Your task to perform on an android device: View the shopping cart on ebay. Search for "dell xps" on ebay, select the first entry, add it to the cart, then select checkout. Image 0: 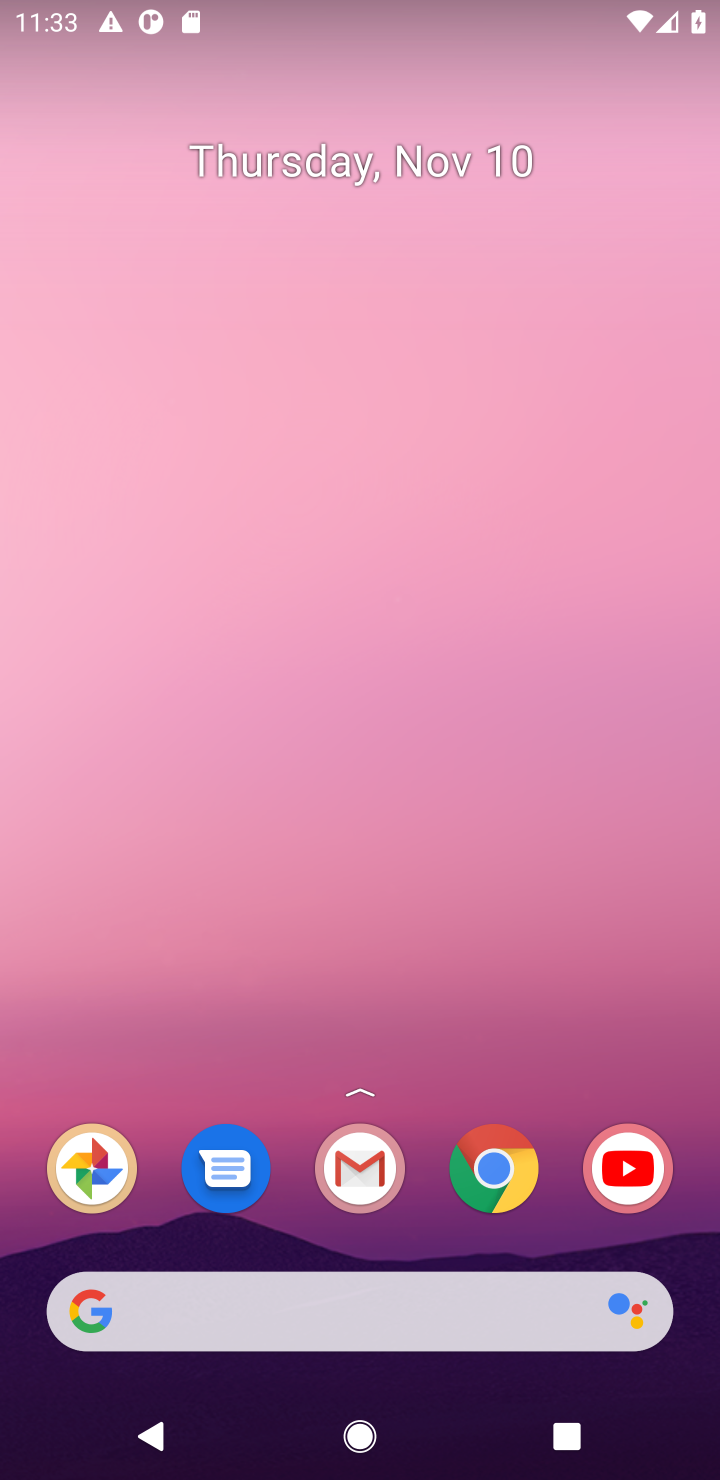
Step 0: click (499, 1171)
Your task to perform on an android device: View the shopping cart on ebay. Search for "dell xps" on ebay, select the first entry, add it to the cart, then select checkout. Image 1: 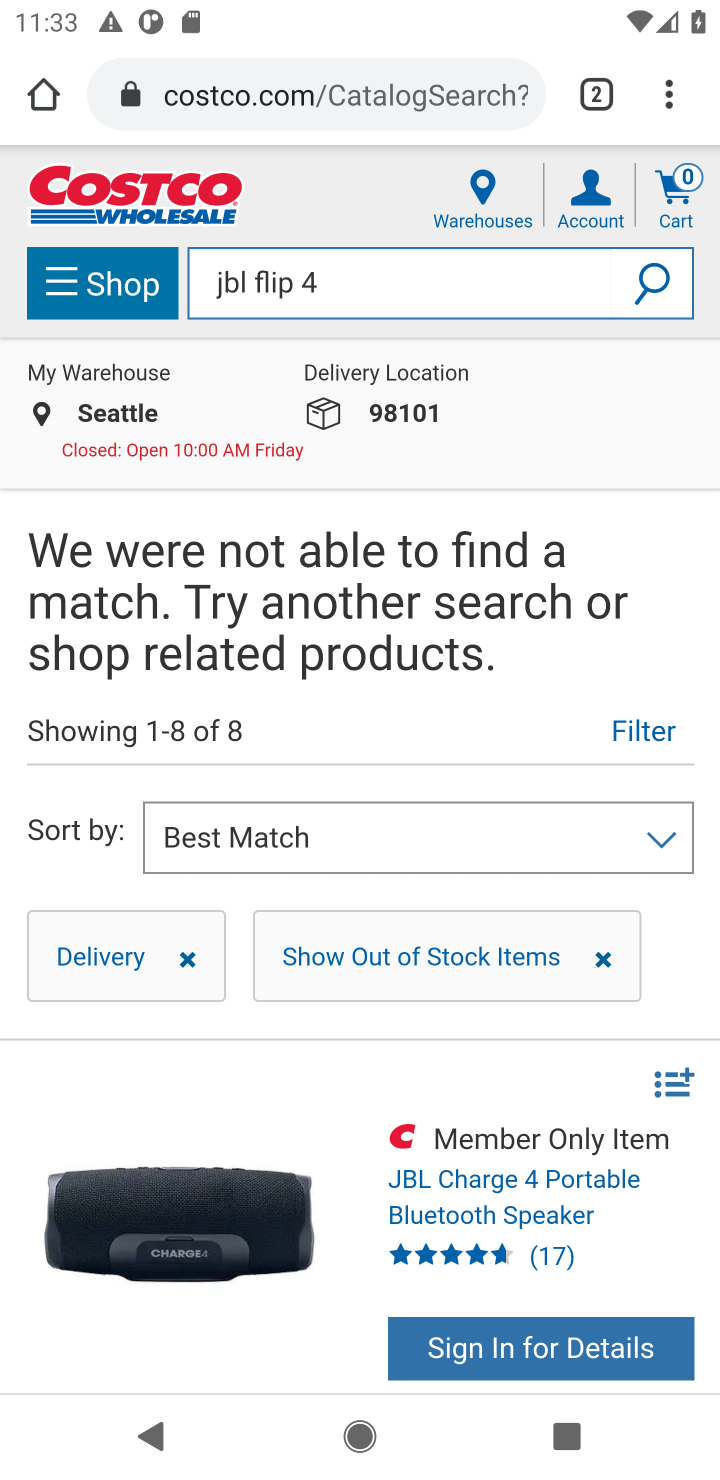
Step 1: click (340, 101)
Your task to perform on an android device: View the shopping cart on ebay. Search for "dell xps" on ebay, select the first entry, add it to the cart, then select checkout. Image 2: 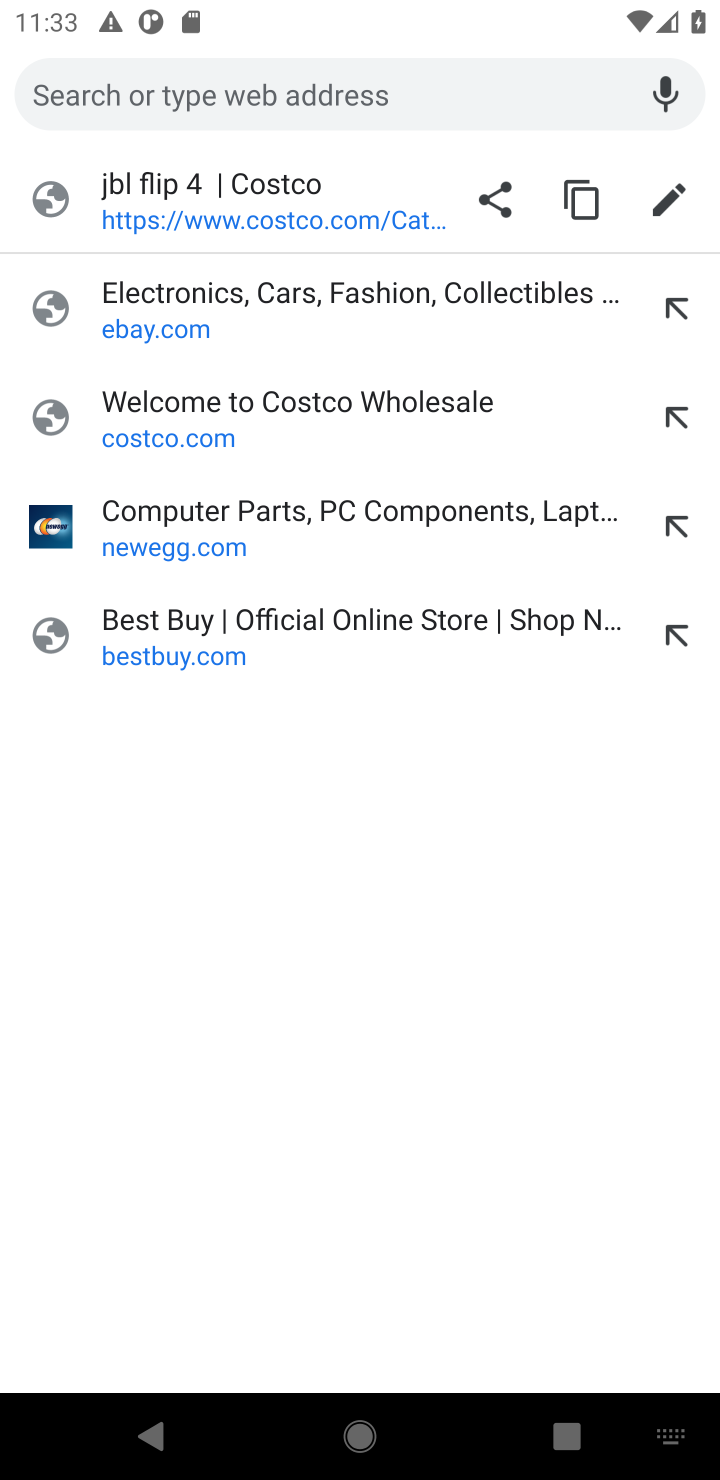
Step 2: click (142, 325)
Your task to perform on an android device: View the shopping cart on ebay. Search for "dell xps" on ebay, select the first entry, add it to the cart, then select checkout. Image 3: 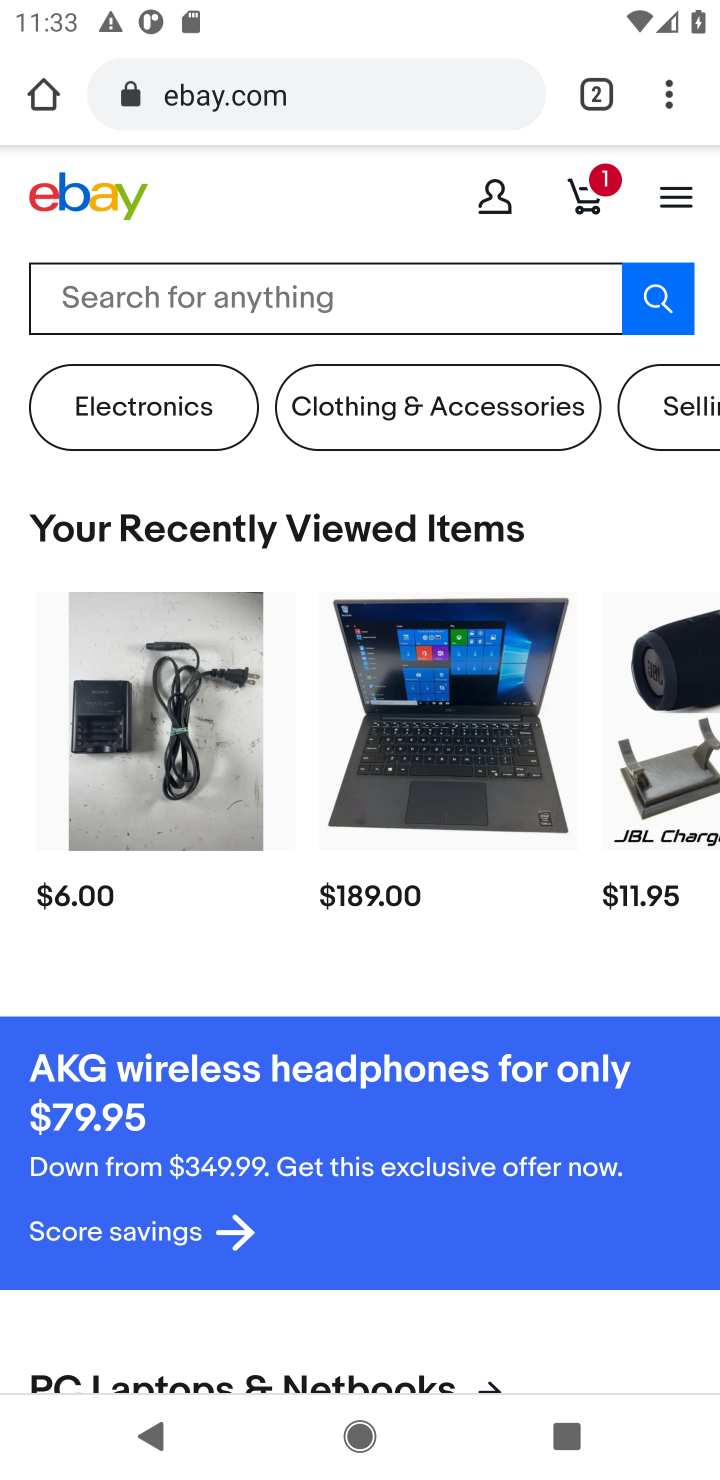
Step 3: click (581, 215)
Your task to perform on an android device: View the shopping cart on ebay. Search for "dell xps" on ebay, select the first entry, add it to the cart, then select checkout. Image 4: 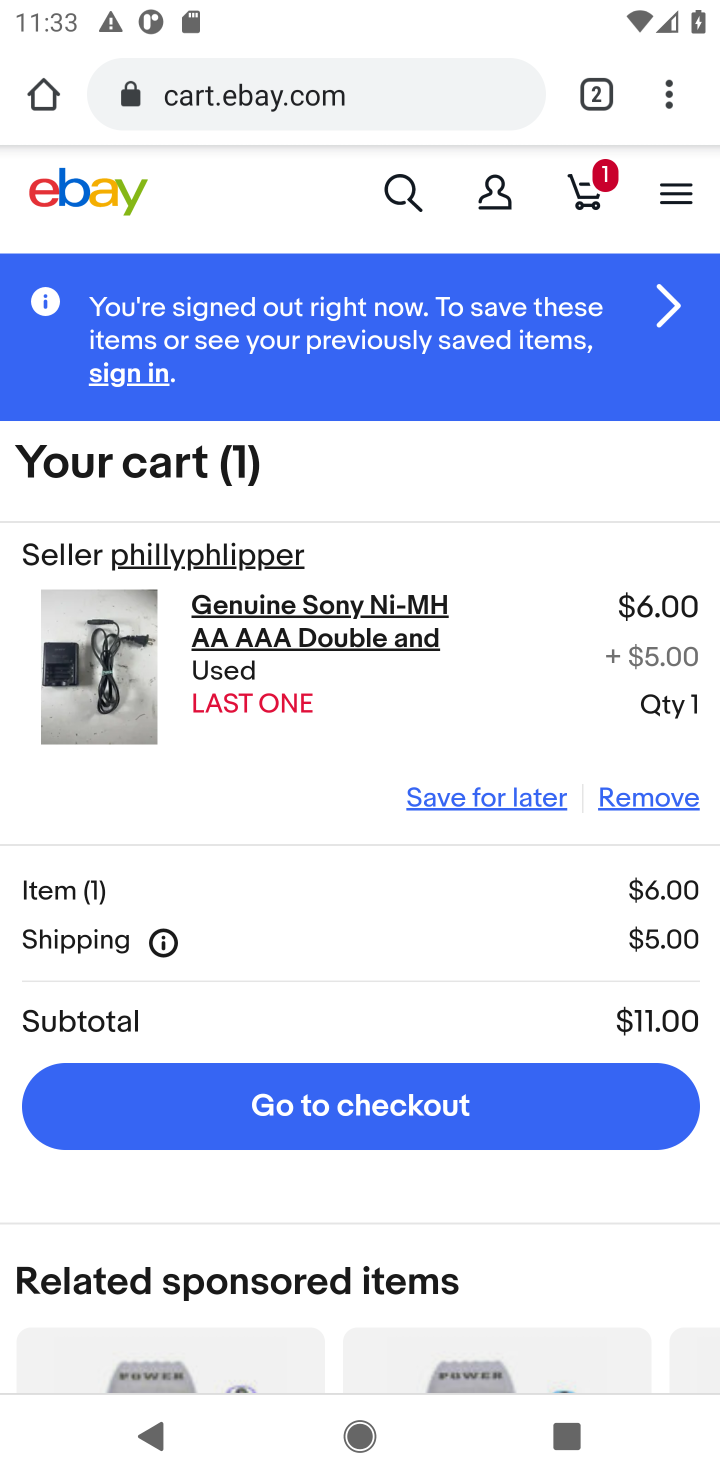
Step 4: click (401, 192)
Your task to perform on an android device: View the shopping cart on ebay. Search for "dell xps" on ebay, select the first entry, add it to the cart, then select checkout. Image 5: 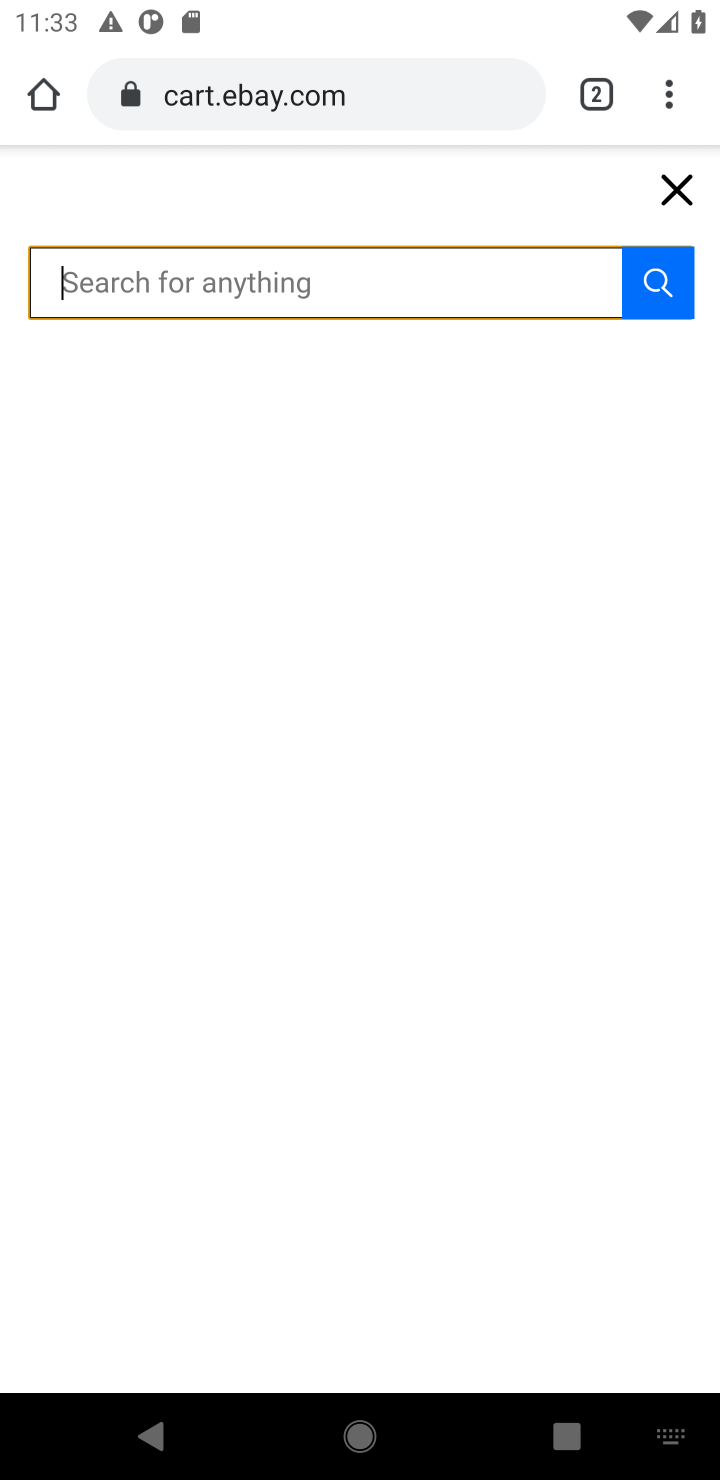
Step 5: type "dell xps"
Your task to perform on an android device: View the shopping cart on ebay. Search for "dell xps" on ebay, select the first entry, add it to the cart, then select checkout. Image 6: 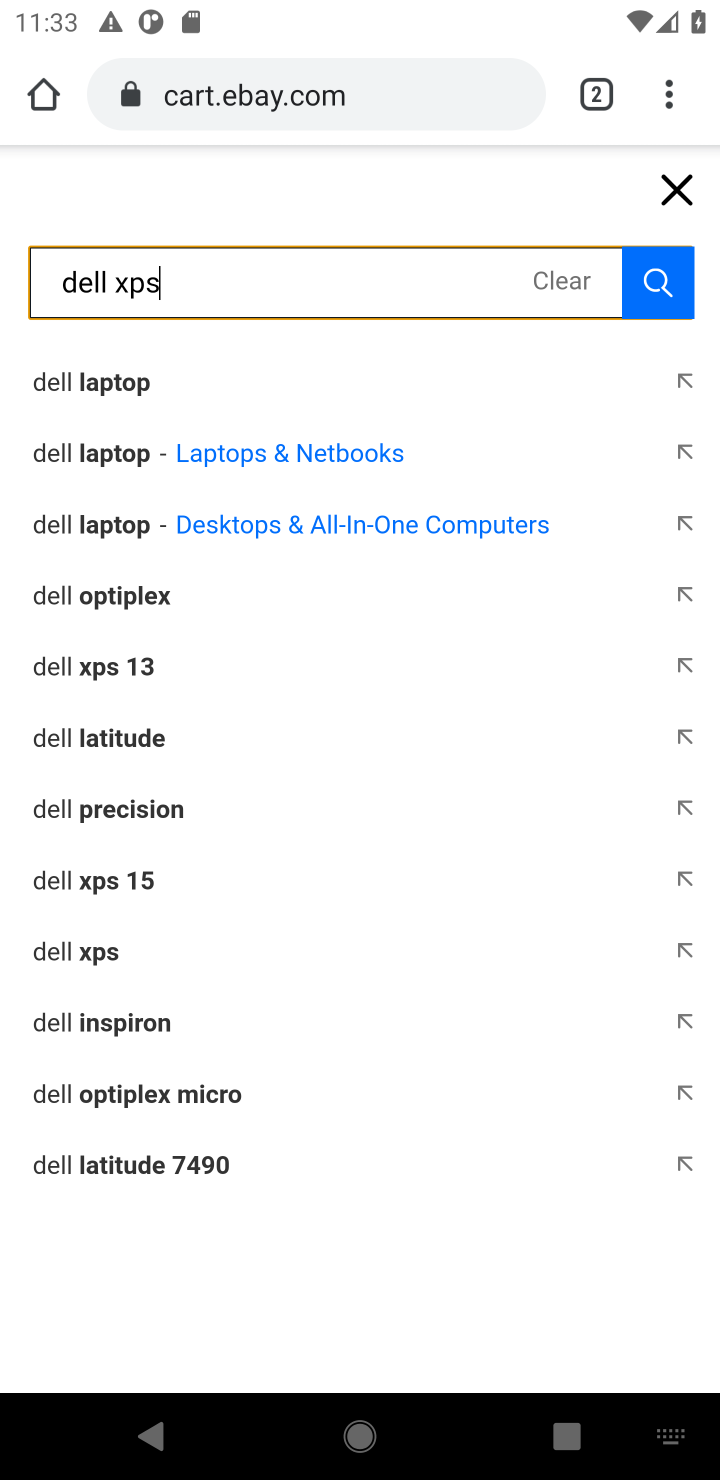
Step 6: click (106, 953)
Your task to perform on an android device: View the shopping cart on ebay. Search for "dell xps" on ebay, select the first entry, add it to the cart, then select checkout. Image 7: 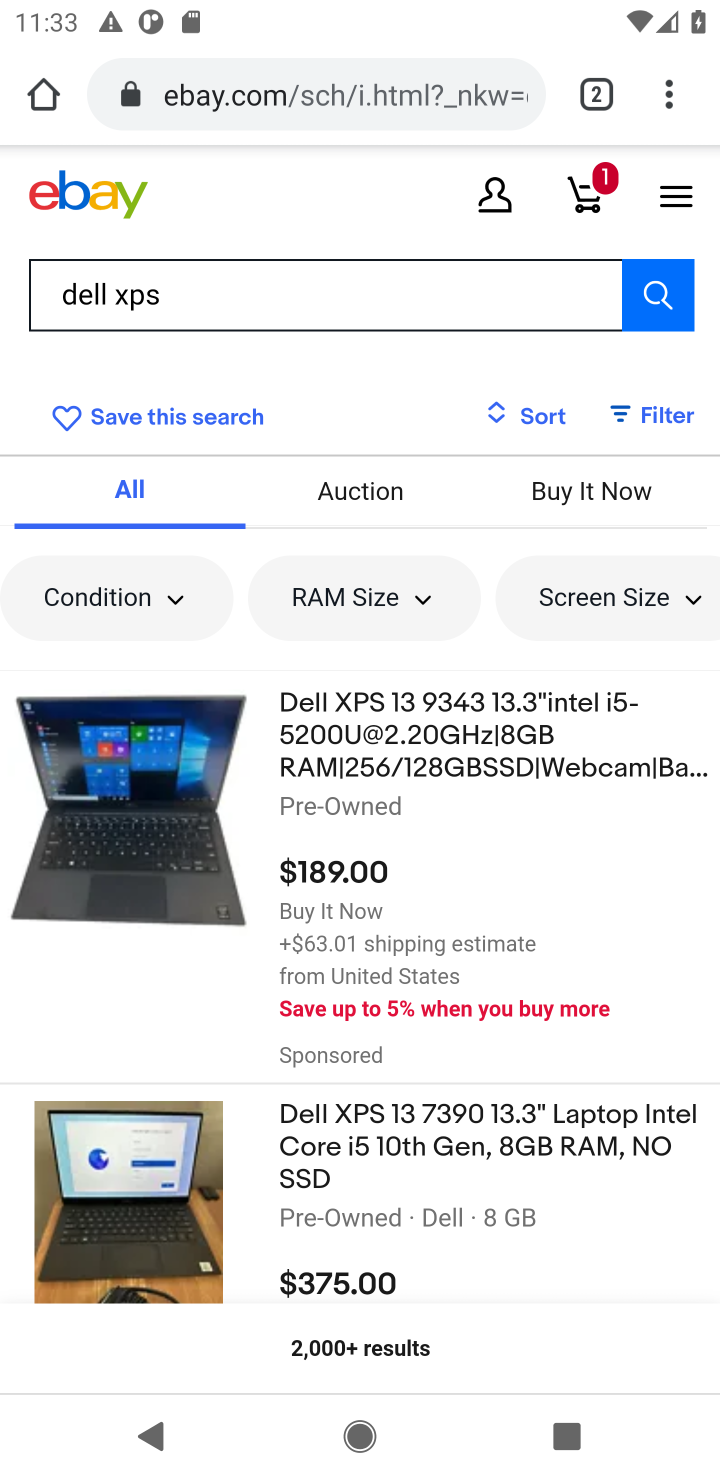
Step 7: click (146, 888)
Your task to perform on an android device: View the shopping cart on ebay. Search for "dell xps" on ebay, select the first entry, add it to the cart, then select checkout. Image 8: 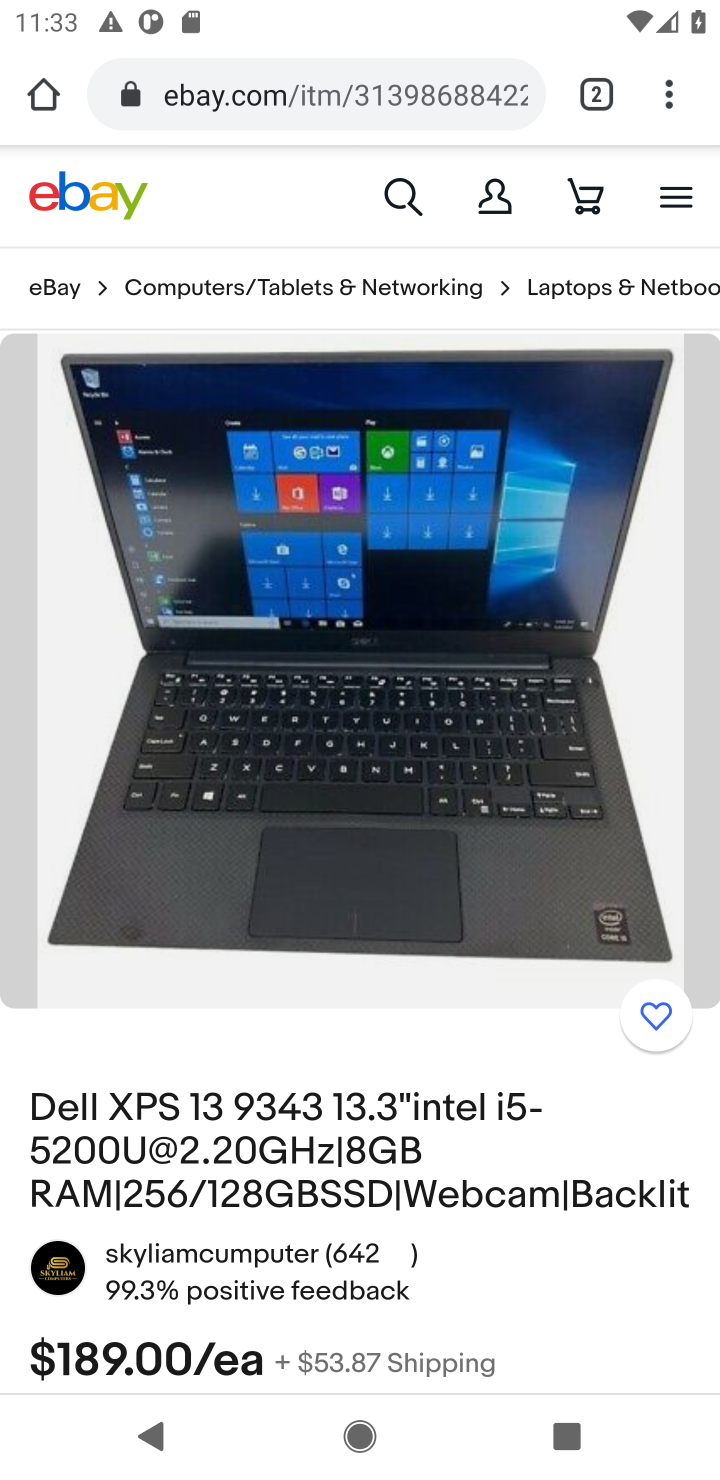
Step 8: drag from (316, 1000) to (304, 550)
Your task to perform on an android device: View the shopping cart on ebay. Search for "dell xps" on ebay, select the first entry, add it to the cart, then select checkout. Image 9: 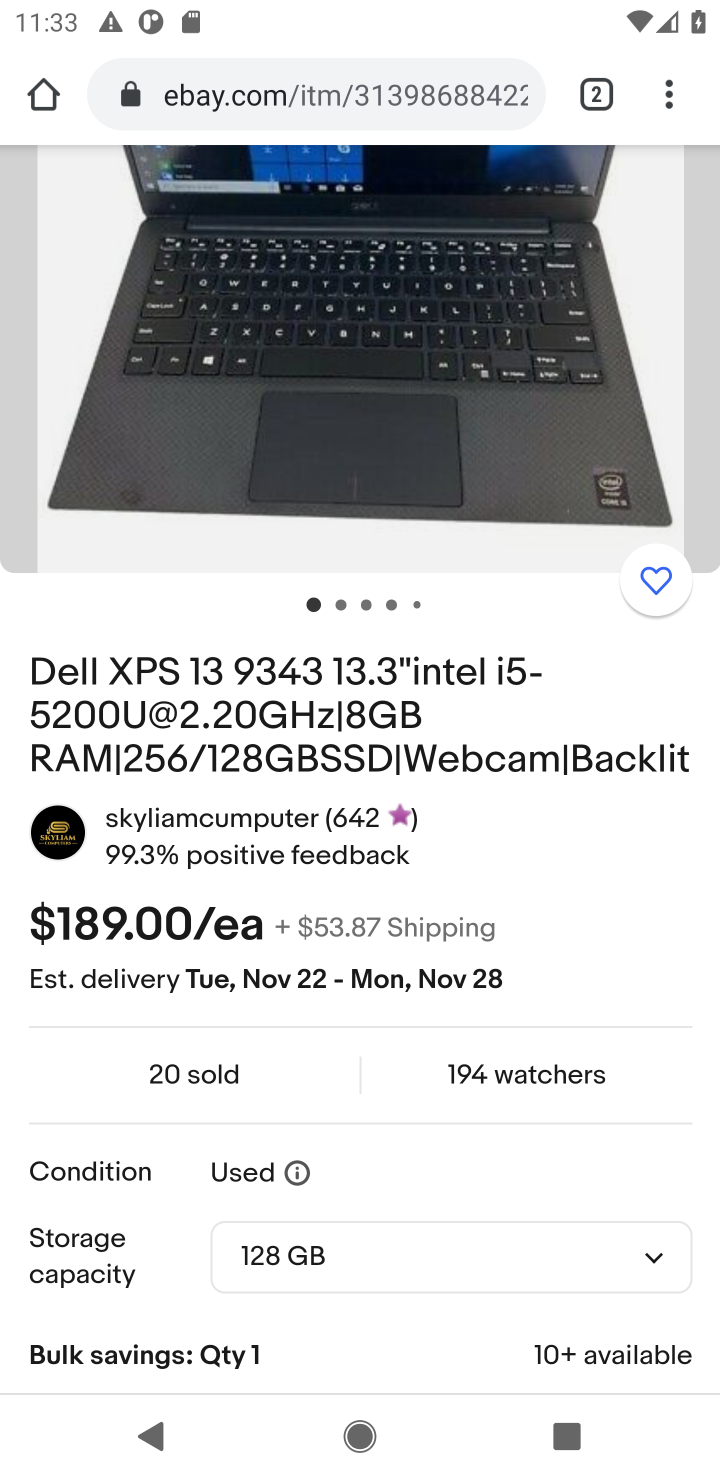
Step 9: drag from (382, 876) to (368, 491)
Your task to perform on an android device: View the shopping cart on ebay. Search for "dell xps" on ebay, select the first entry, add it to the cart, then select checkout. Image 10: 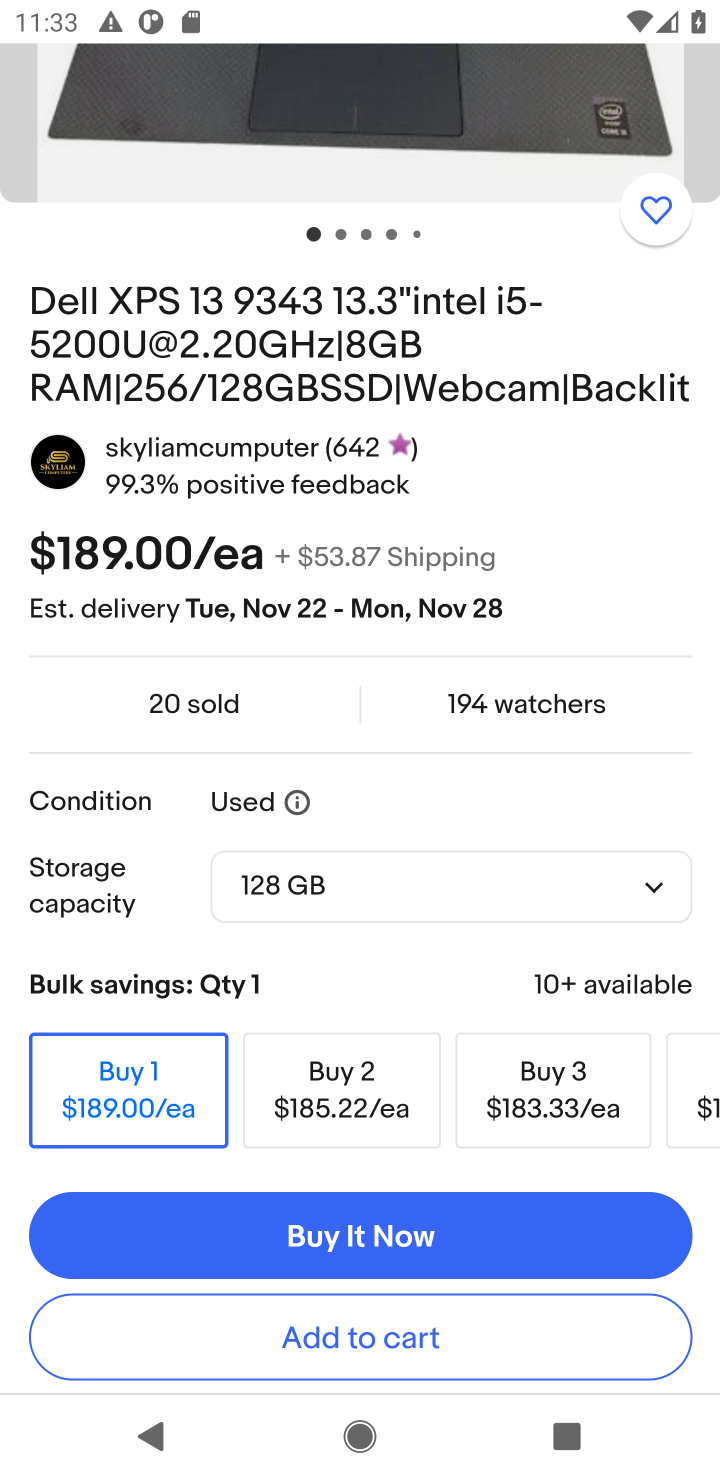
Step 10: click (331, 1331)
Your task to perform on an android device: View the shopping cart on ebay. Search for "dell xps" on ebay, select the first entry, add it to the cart, then select checkout. Image 11: 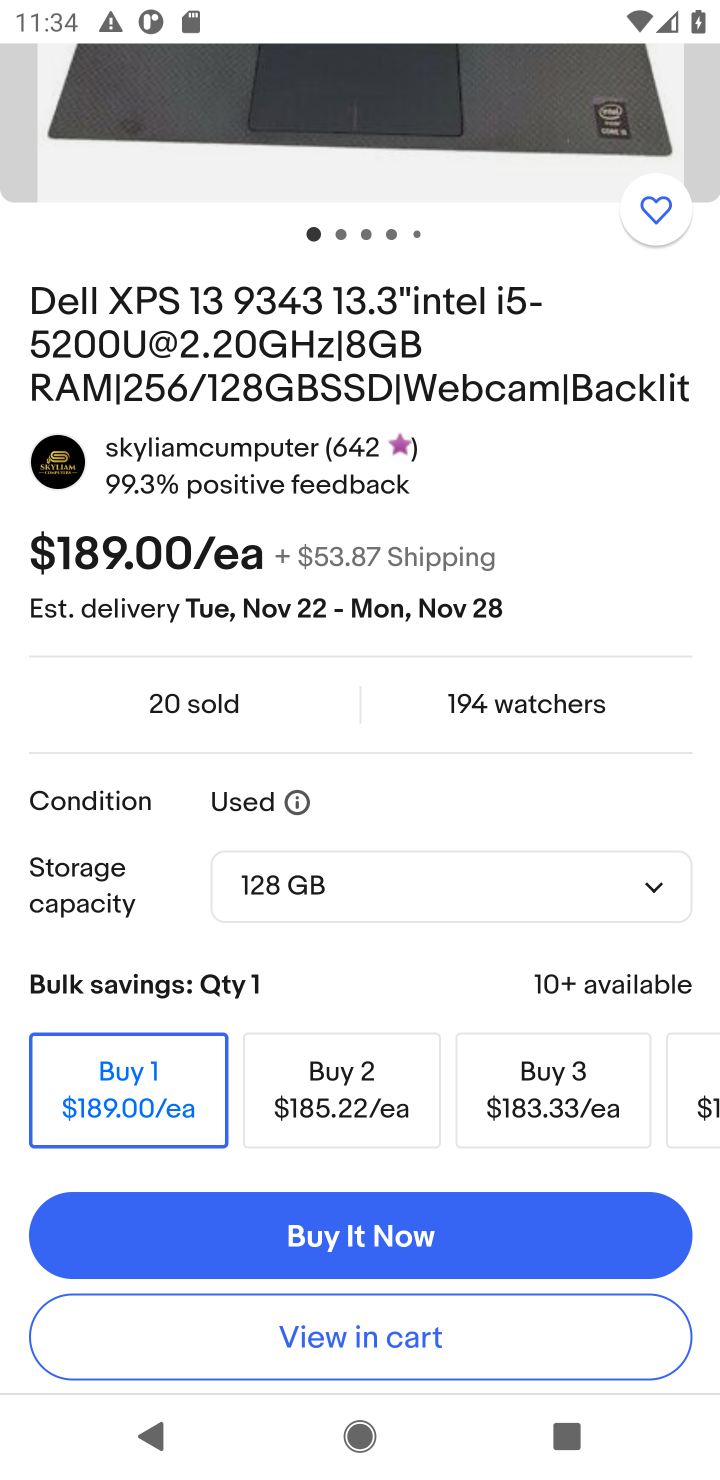
Step 11: click (327, 1337)
Your task to perform on an android device: View the shopping cart on ebay. Search for "dell xps" on ebay, select the first entry, add it to the cart, then select checkout. Image 12: 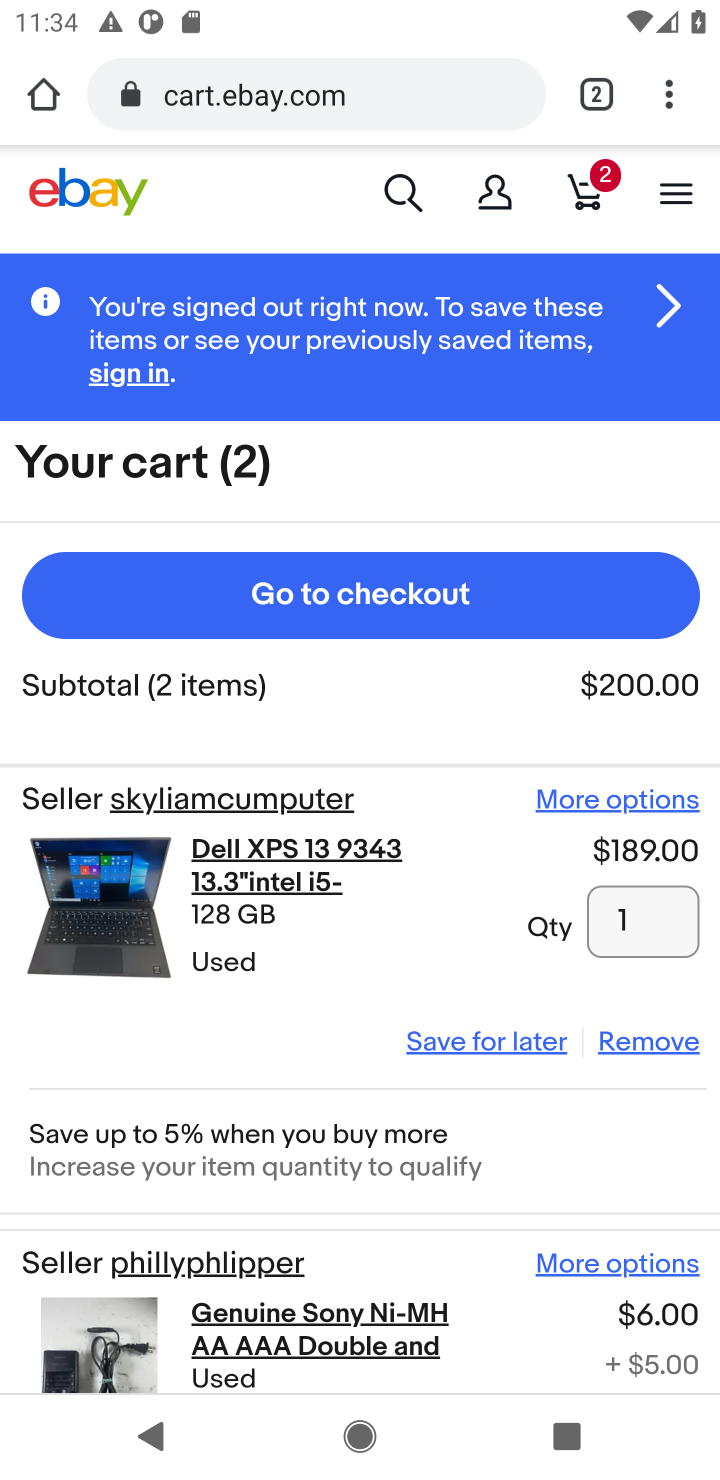
Step 12: click (325, 609)
Your task to perform on an android device: View the shopping cart on ebay. Search for "dell xps" on ebay, select the first entry, add it to the cart, then select checkout. Image 13: 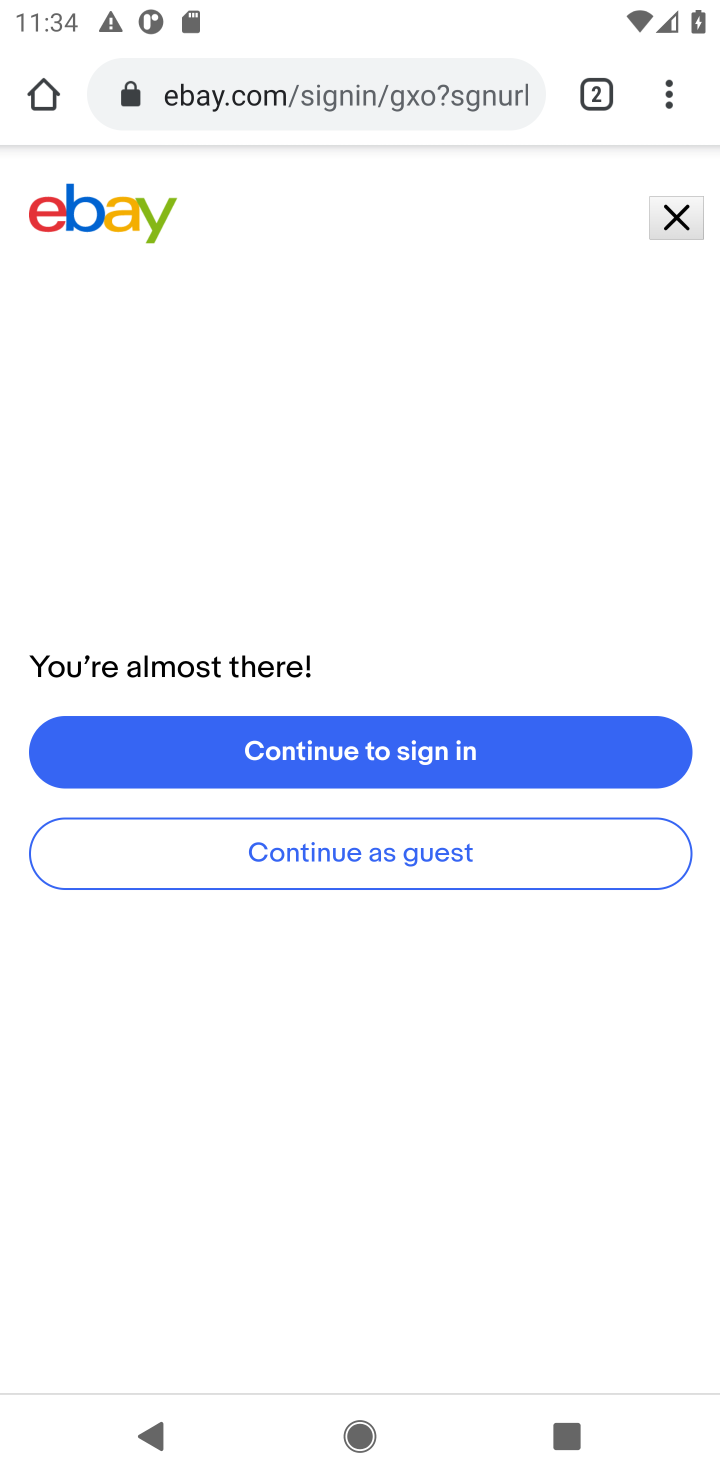
Step 13: task complete